Your task to perform on an android device: Open my contact list Image 0: 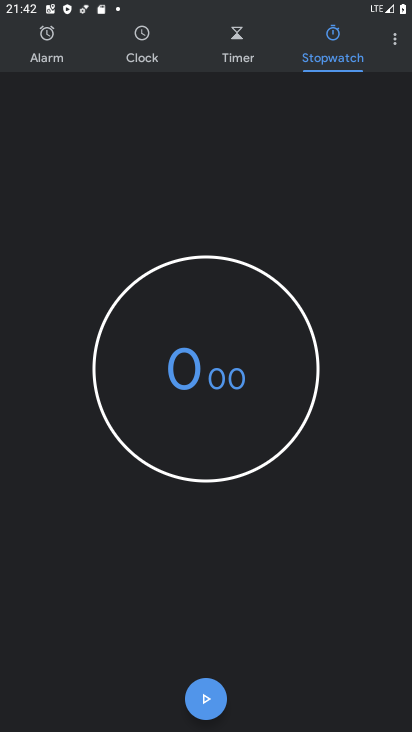
Step 0: press back button
Your task to perform on an android device: Open my contact list Image 1: 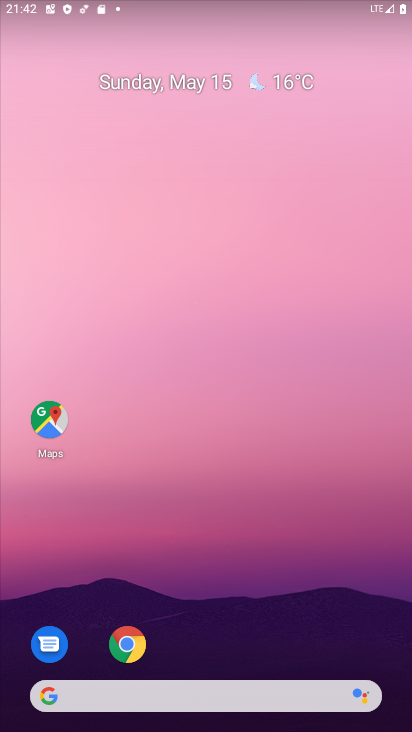
Step 1: drag from (198, 546) to (310, 132)
Your task to perform on an android device: Open my contact list Image 2: 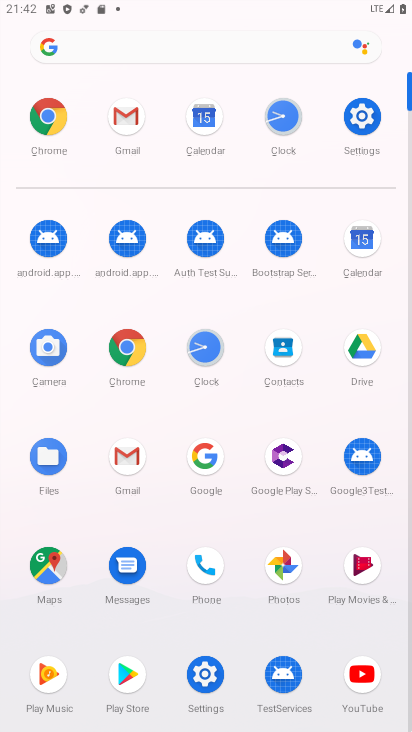
Step 2: click (278, 345)
Your task to perform on an android device: Open my contact list Image 3: 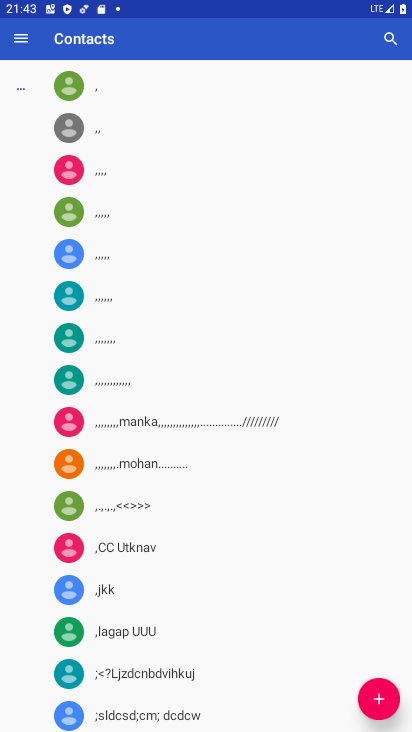
Step 3: task complete